Your task to perform on an android device: change text size in settings app Image 0: 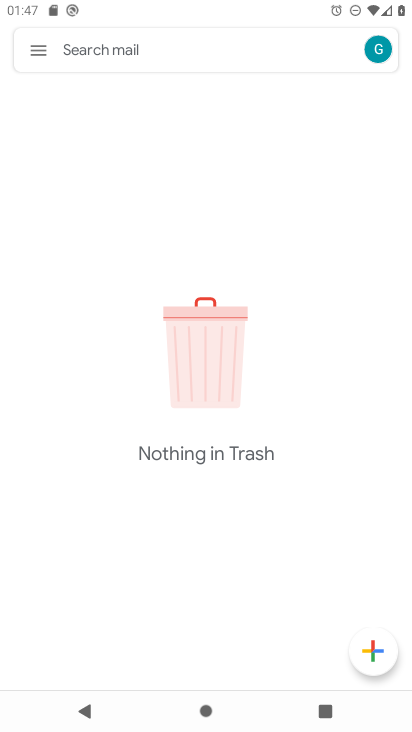
Step 0: press home button
Your task to perform on an android device: change text size in settings app Image 1: 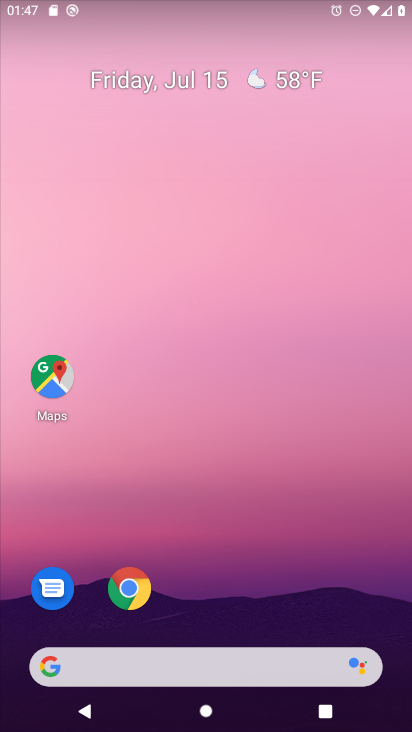
Step 1: drag from (394, 651) to (331, 118)
Your task to perform on an android device: change text size in settings app Image 2: 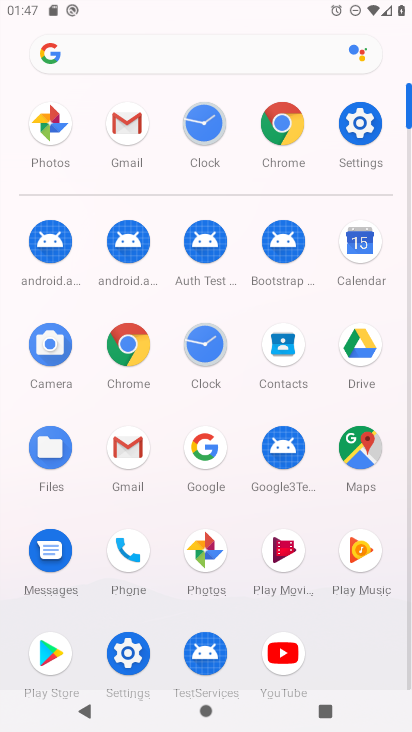
Step 2: click (128, 655)
Your task to perform on an android device: change text size in settings app Image 3: 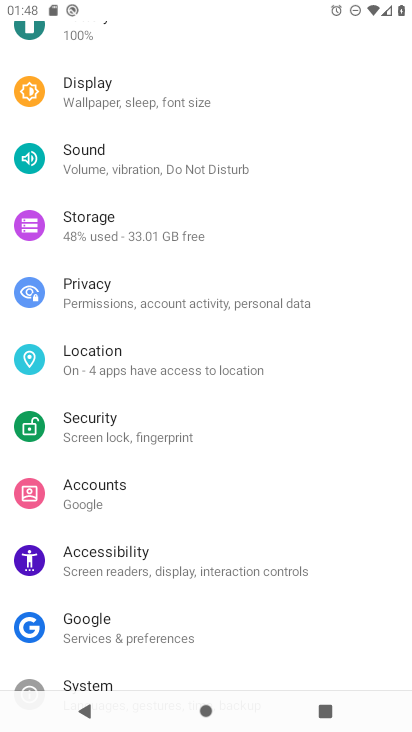
Step 3: drag from (263, 78) to (259, 314)
Your task to perform on an android device: change text size in settings app Image 4: 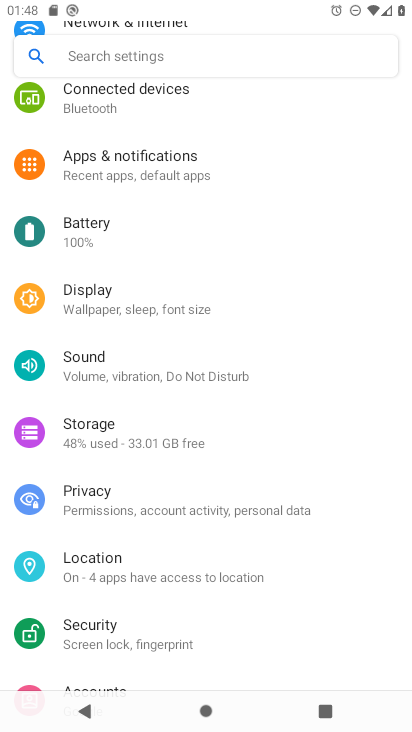
Step 4: click (84, 282)
Your task to perform on an android device: change text size in settings app Image 5: 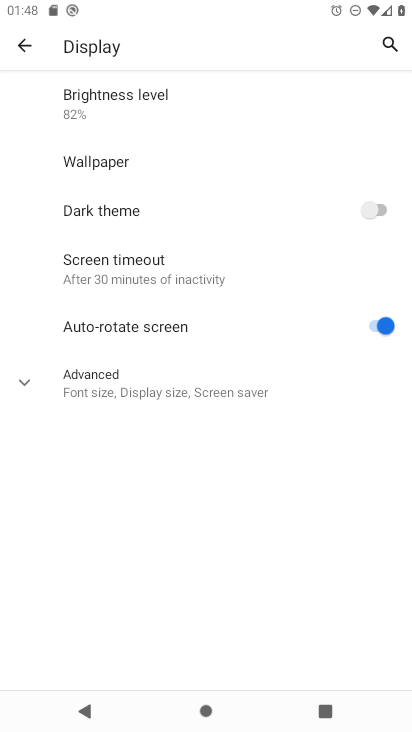
Step 5: click (19, 377)
Your task to perform on an android device: change text size in settings app Image 6: 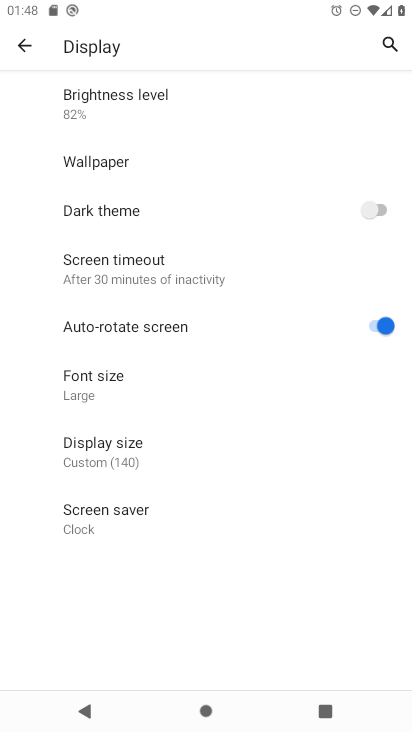
Step 6: click (110, 392)
Your task to perform on an android device: change text size in settings app Image 7: 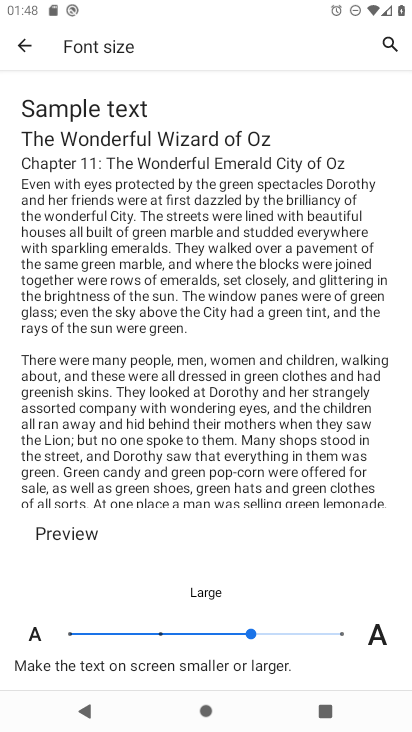
Step 7: click (343, 633)
Your task to perform on an android device: change text size in settings app Image 8: 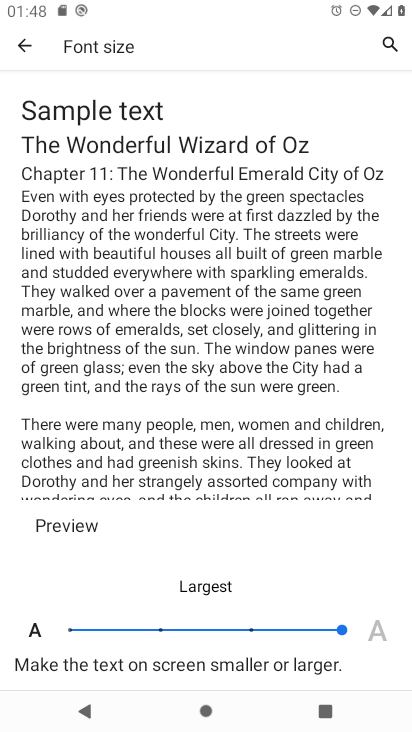
Step 8: task complete